Your task to perform on an android device: Show me the alarms in the clock app Image 0: 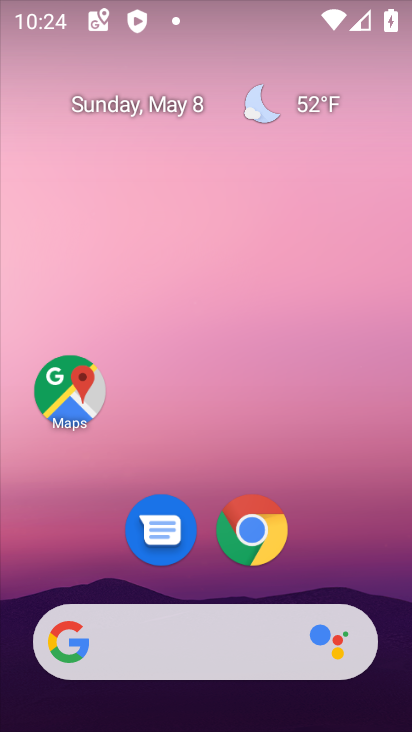
Step 0: drag from (368, 530) to (373, 122)
Your task to perform on an android device: Show me the alarms in the clock app Image 1: 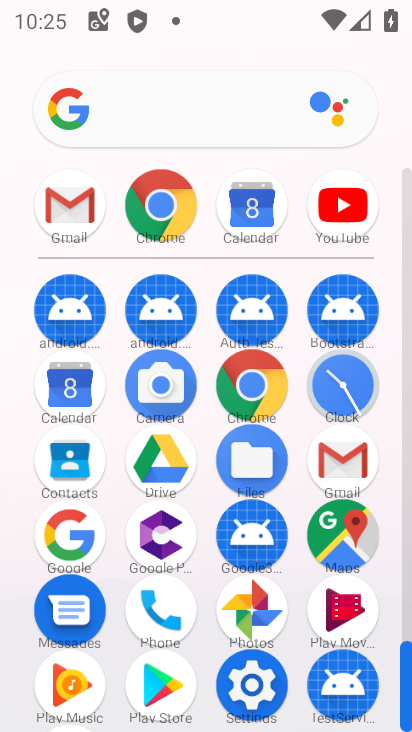
Step 1: click (344, 407)
Your task to perform on an android device: Show me the alarms in the clock app Image 2: 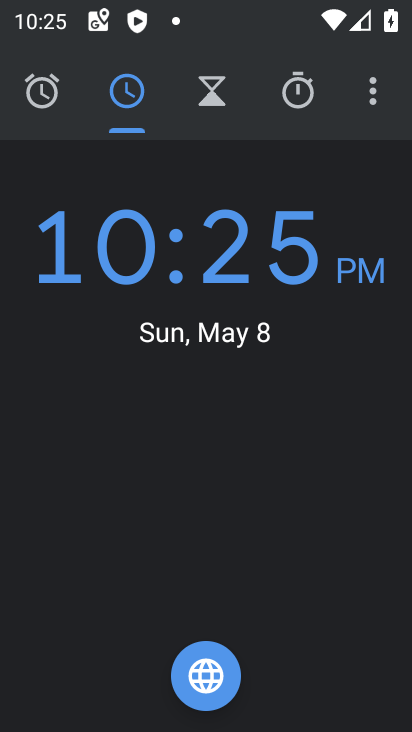
Step 2: click (29, 100)
Your task to perform on an android device: Show me the alarms in the clock app Image 3: 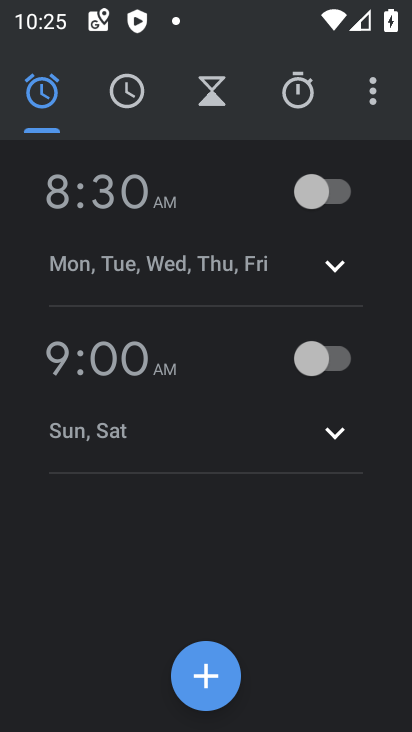
Step 3: task complete